Your task to perform on an android device: show emergency info Image 0: 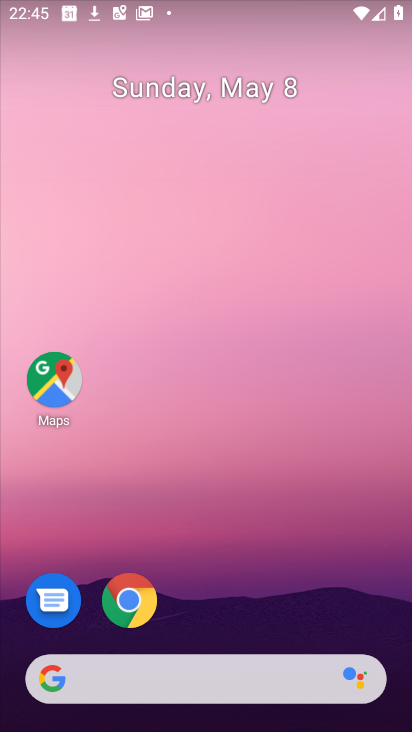
Step 0: drag from (302, 707) to (401, 222)
Your task to perform on an android device: show emergency info Image 1: 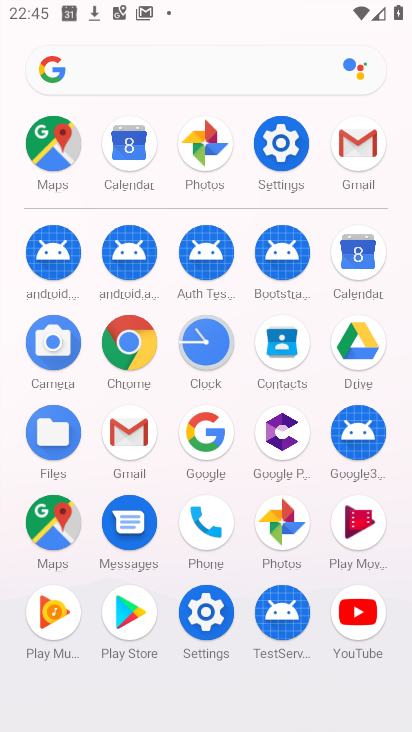
Step 1: click (271, 155)
Your task to perform on an android device: show emergency info Image 2: 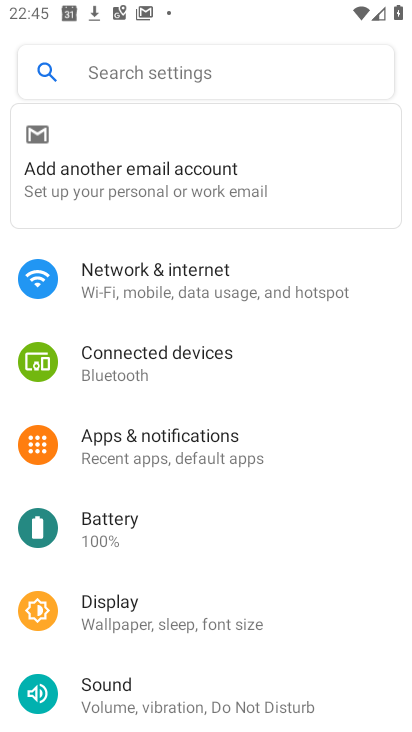
Step 2: click (139, 73)
Your task to perform on an android device: show emergency info Image 3: 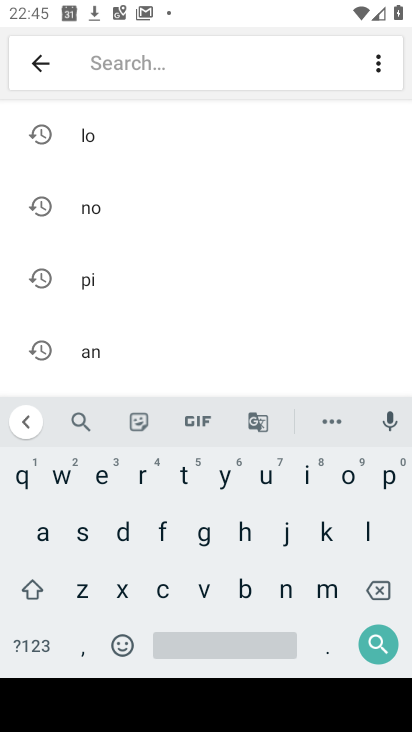
Step 3: click (104, 483)
Your task to perform on an android device: show emergency info Image 4: 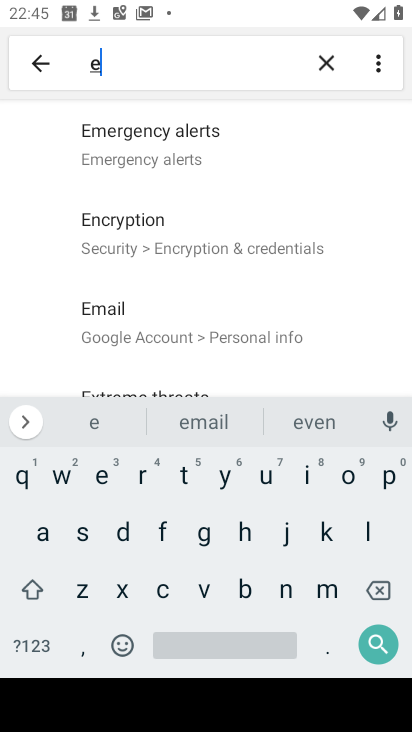
Step 4: click (323, 593)
Your task to perform on an android device: show emergency info Image 5: 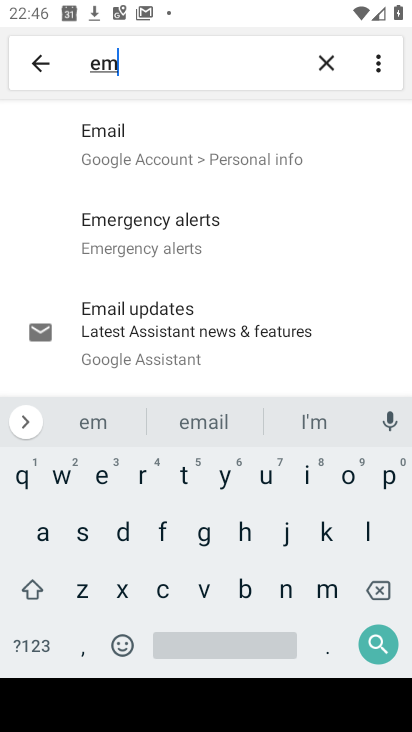
Step 5: click (103, 485)
Your task to perform on an android device: show emergency info Image 6: 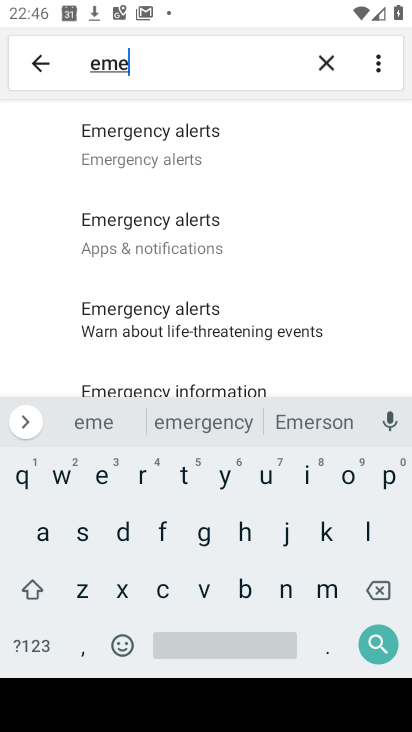
Step 6: click (192, 428)
Your task to perform on an android device: show emergency info Image 7: 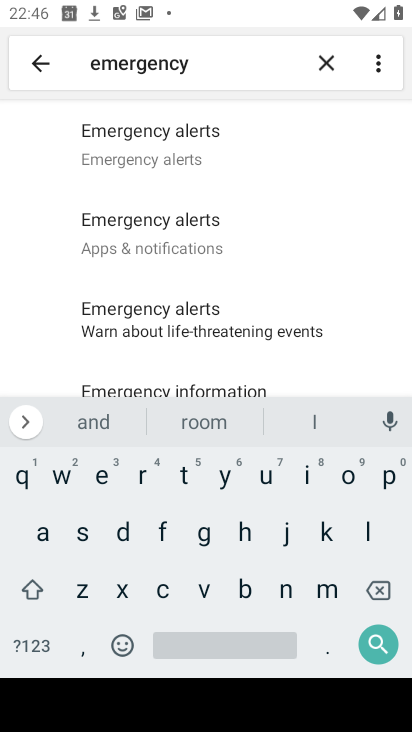
Step 7: click (301, 479)
Your task to perform on an android device: show emergency info Image 8: 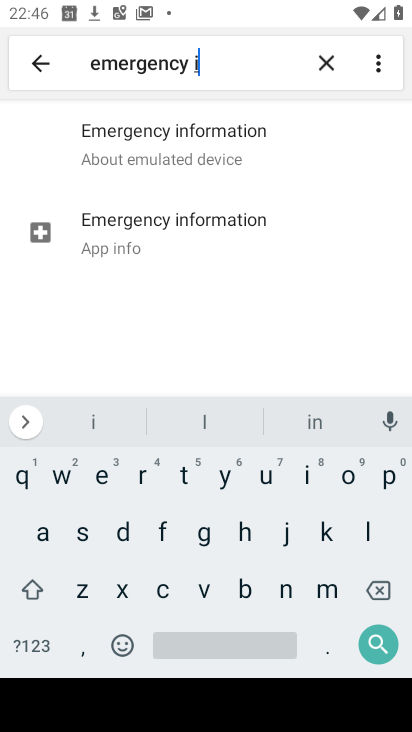
Step 8: click (134, 158)
Your task to perform on an android device: show emergency info Image 9: 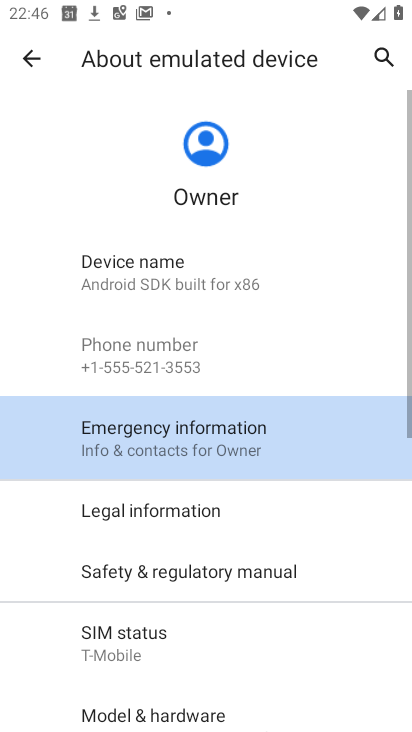
Step 9: click (172, 434)
Your task to perform on an android device: show emergency info Image 10: 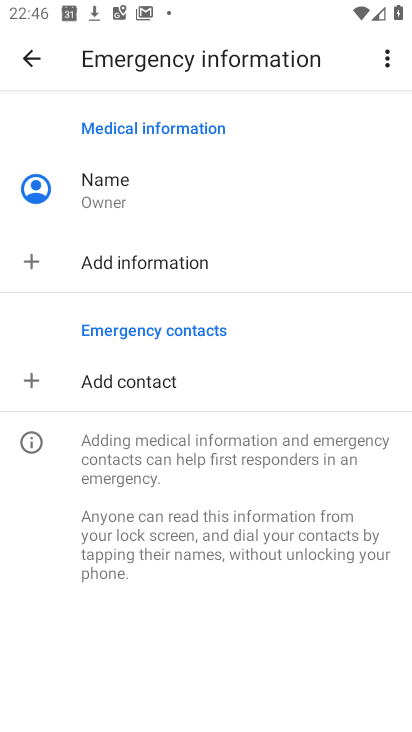
Step 10: task complete